Your task to perform on an android device: snooze an email in the gmail app Image 0: 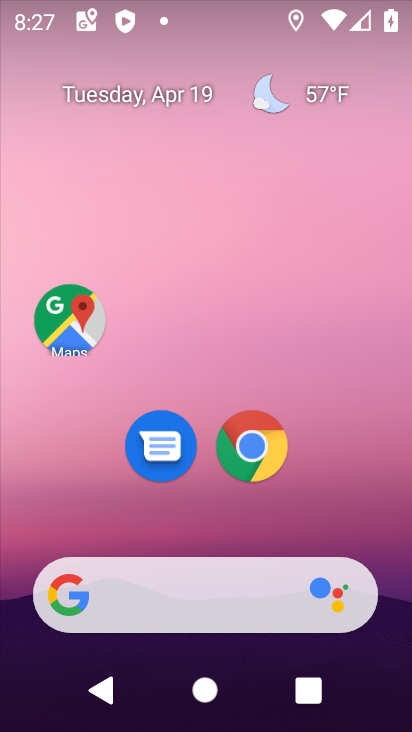
Step 0: press home button
Your task to perform on an android device: snooze an email in the gmail app Image 1: 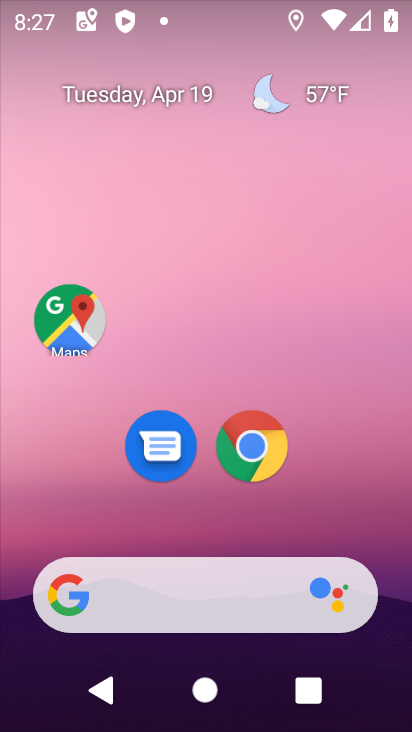
Step 1: drag from (318, 473) to (235, 68)
Your task to perform on an android device: snooze an email in the gmail app Image 2: 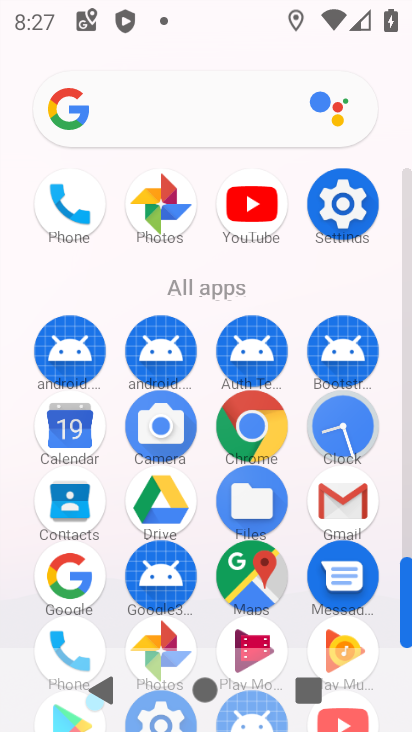
Step 2: click (342, 489)
Your task to perform on an android device: snooze an email in the gmail app Image 3: 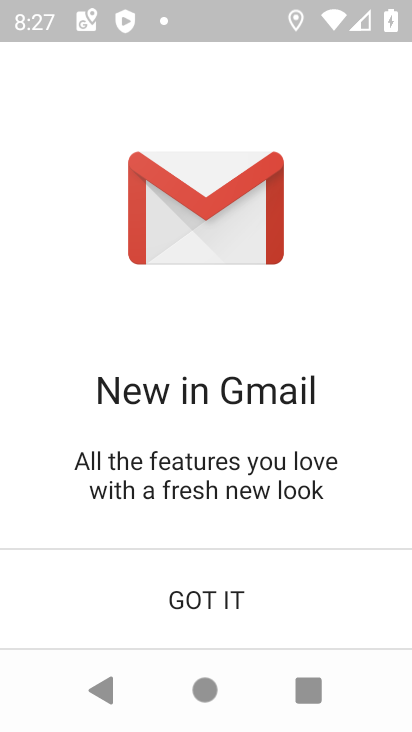
Step 3: click (186, 598)
Your task to perform on an android device: snooze an email in the gmail app Image 4: 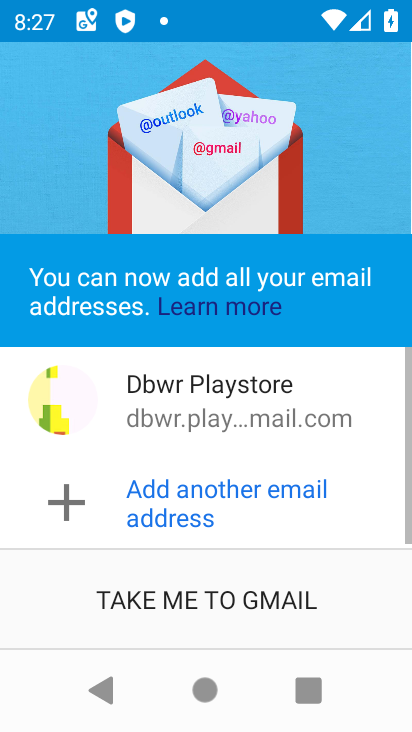
Step 4: click (186, 596)
Your task to perform on an android device: snooze an email in the gmail app Image 5: 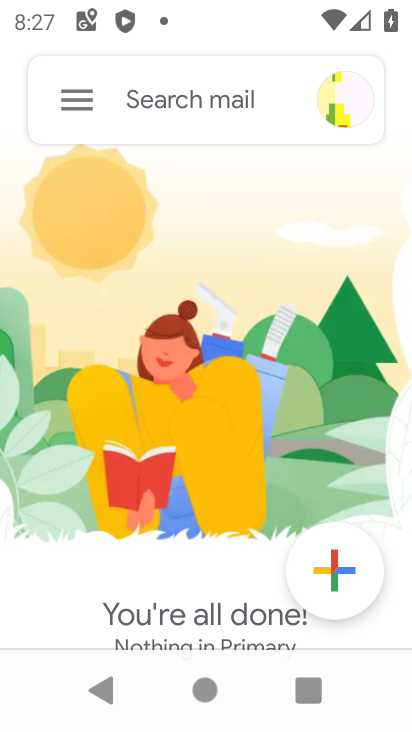
Step 5: click (82, 102)
Your task to perform on an android device: snooze an email in the gmail app Image 6: 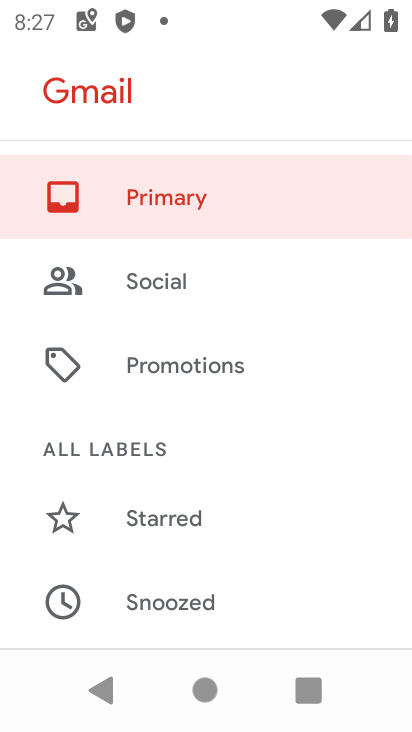
Step 6: task complete